Your task to perform on an android device: Go to Android settings Image 0: 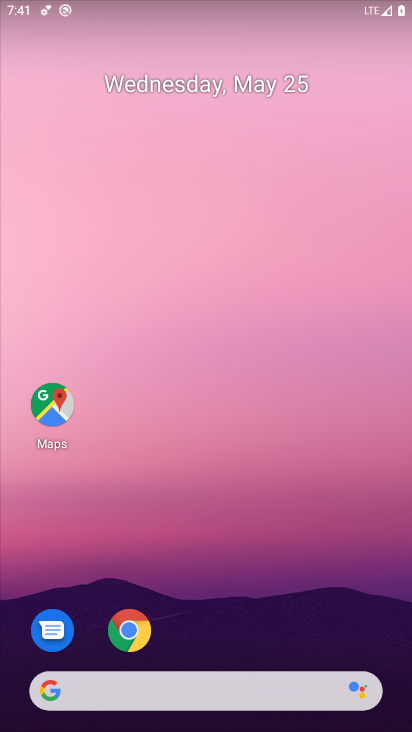
Step 0: drag from (298, 602) to (384, 301)
Your task to perform on an android device: Go to Android settings Image 1: 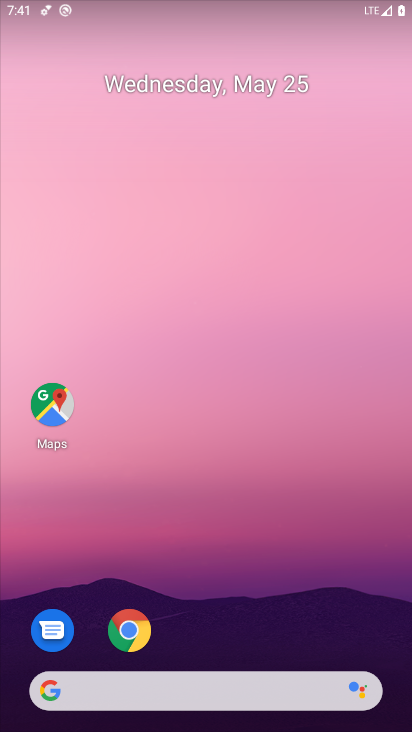
Step 1: drag from (173, 621) to (292, 257)
Your task to perform on an android device: Go to Android settings Image 2: 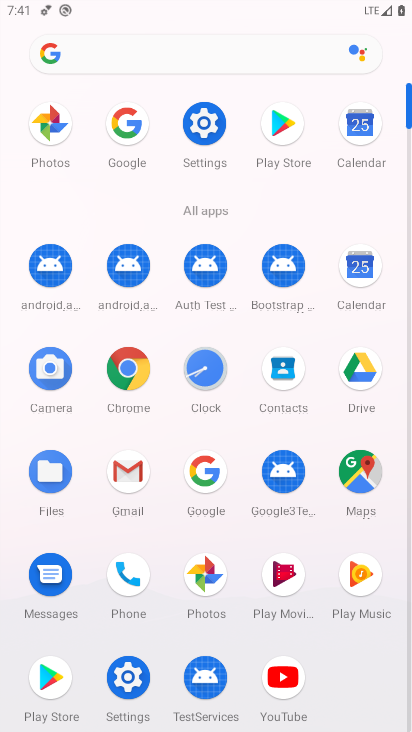
Step 2: click (192, 124)
Your task to perform on an android device: Go to Android settings Image 3: 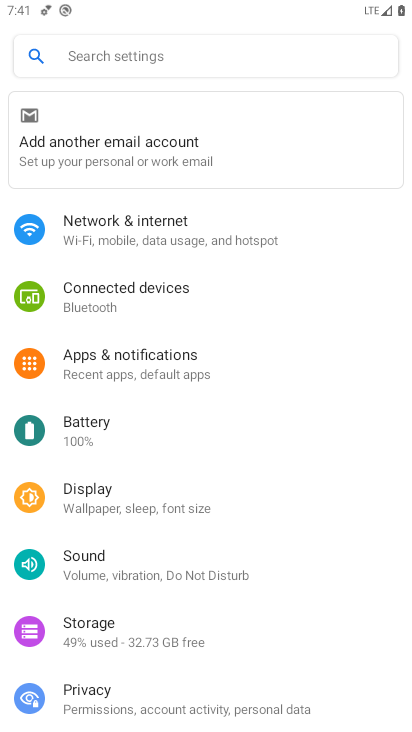
Step 3: task complete